Your task to perform on an android device: Go to wifi settings Image 0: 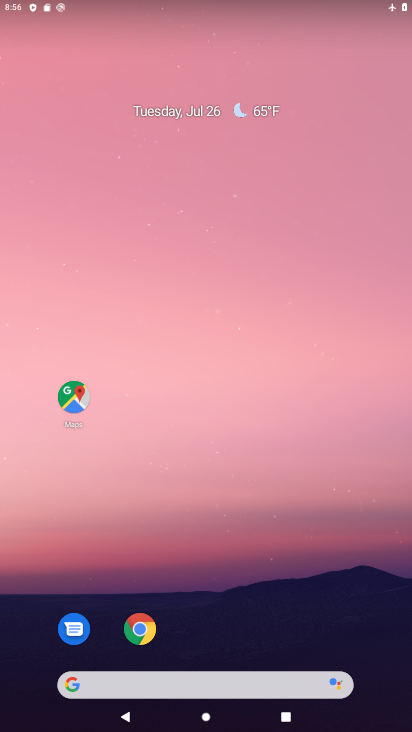
Step 0: drag from (334, 595) to (245, 164)
Your task to perform on an android device: Go to wifi settings Image 1: 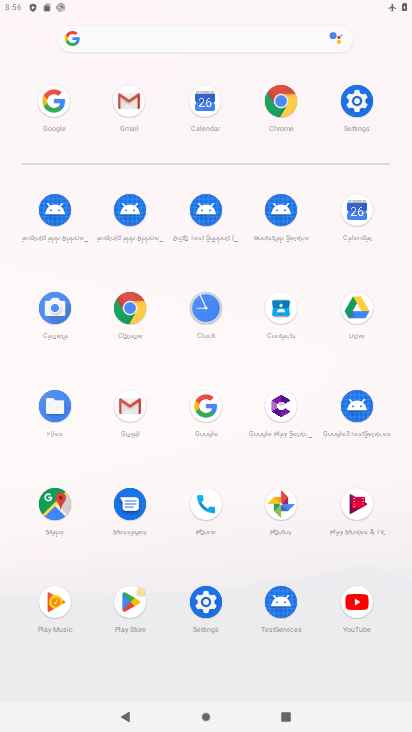
Step 1: click (215, 599)
Your task to perform on an android device: Go to wifi settings Image 2: 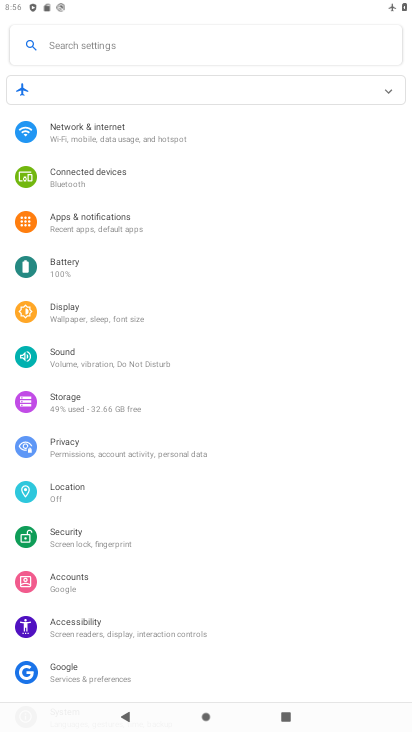
Step 2: click (122, 140)
Your task to perform on an android device: Go to wifi settings Image 3: 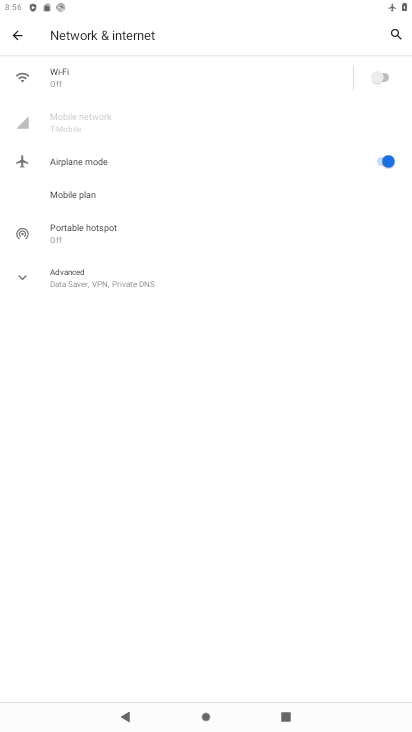
Step 3: click (200, 71)
Your task to perform on an android device: Go to wifi settings Image 4: 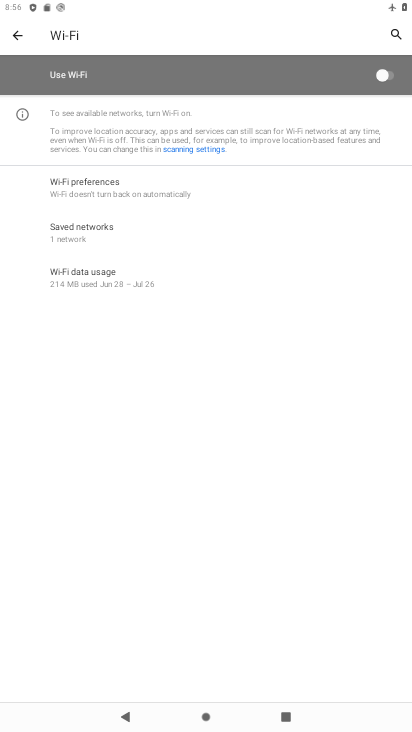
Step 4: click (391, 83)
Your task to perform on an android device: Go to wifi settings Image 5: 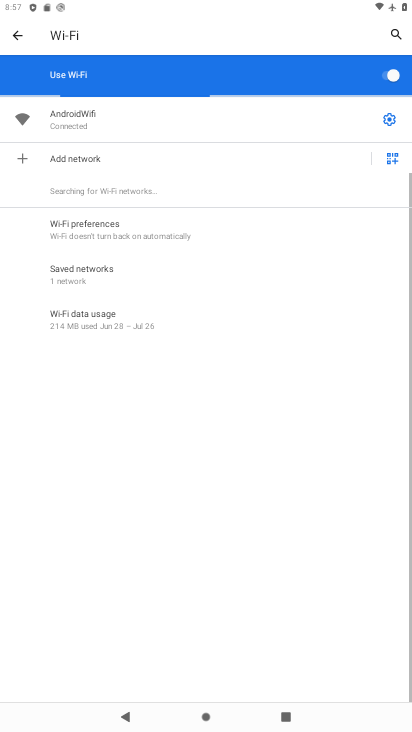
Step 5: click (388, 119)
Your task to perform on an android device: Go to wifi settings Image 6: 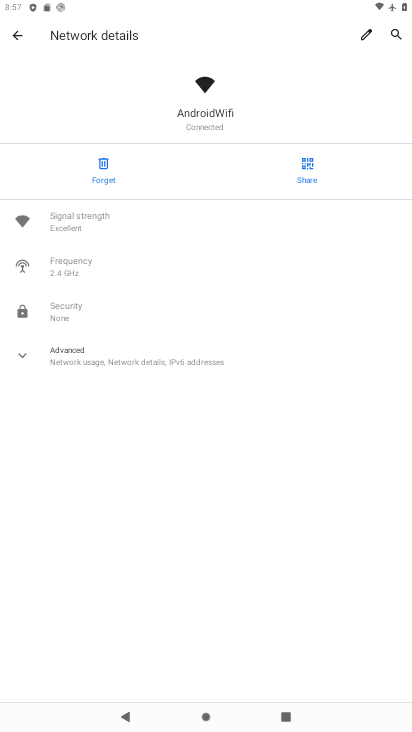
Step 6: task complete